Your task to perform on an android device: Open location settings Image 0: 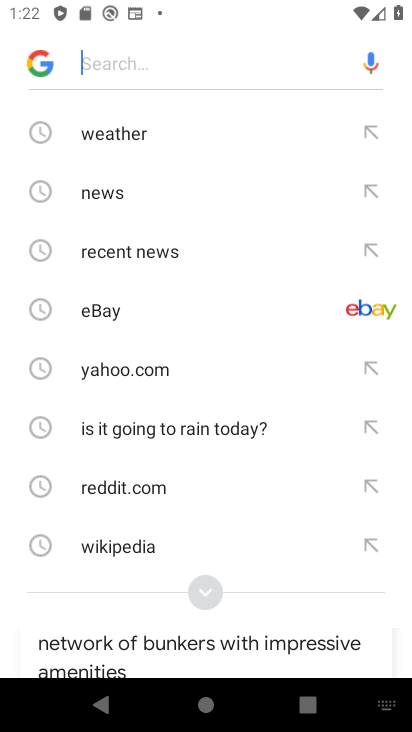
Step 0: press home button
Your task to perform on an android device: Open location settings Image 1: 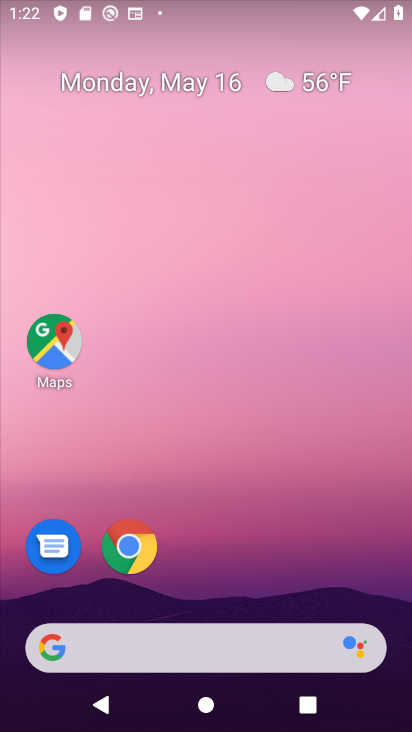
Step 1: drag from (216, 583) to (226, 174)
Your task to perform on an android device: Open location settings Image 2: 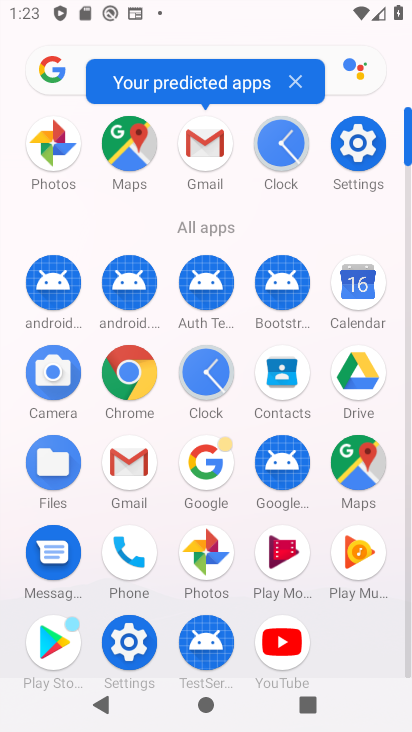
Step 2: click (137, 640)
Your task to perform on an android device: Open location settings Image 3: 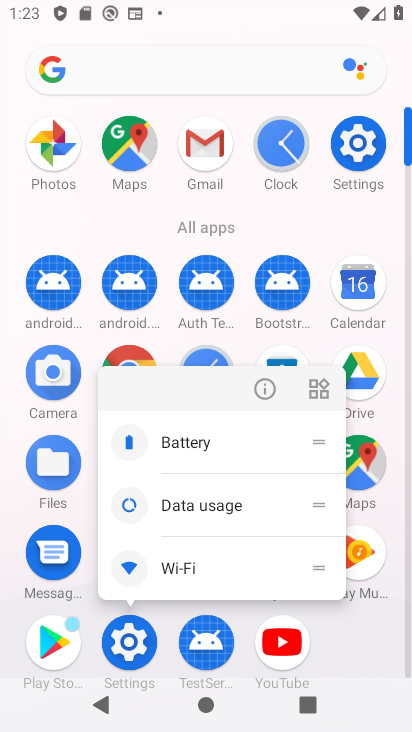
Step 3: click (120, 625)
Your task to perform on an android device: Open location settings Image 4: 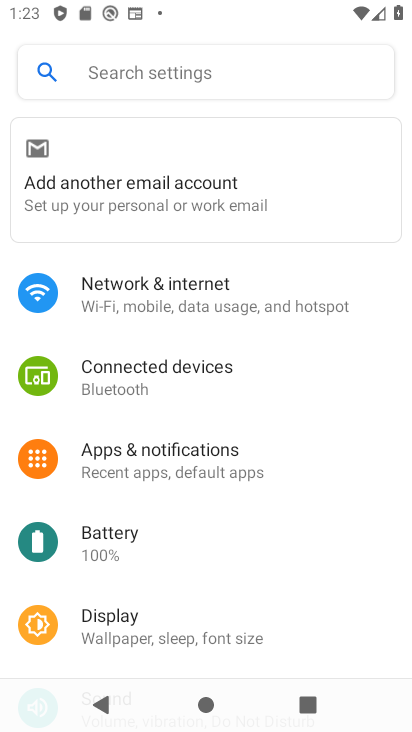
Step 4: drag from (259, 592) to (261, 228)
Your task to perform on an android device: Open location settings Image 5: 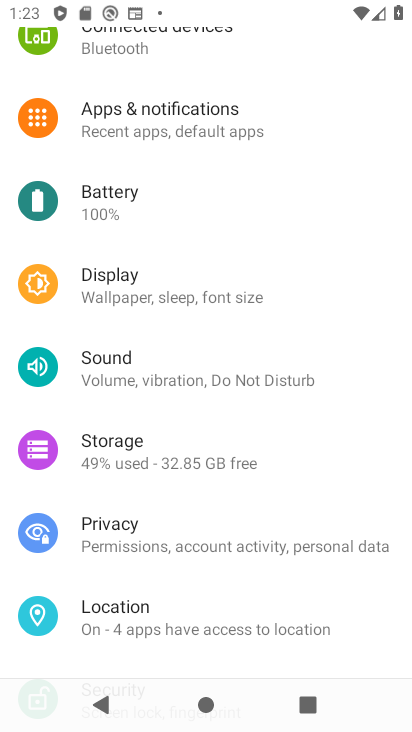
Step 5: click (177, 622)
Your task to perform on an android device: Open location settings Image 6: 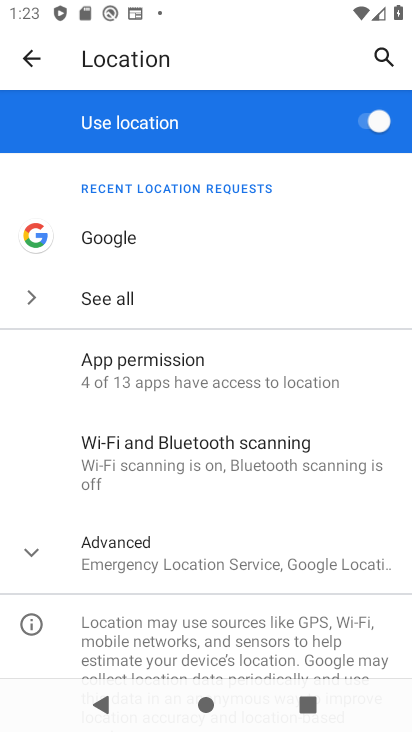
Step 6: task complete